Your task to perform on an android device: toggle notifications settings in the gmail app Image 0: 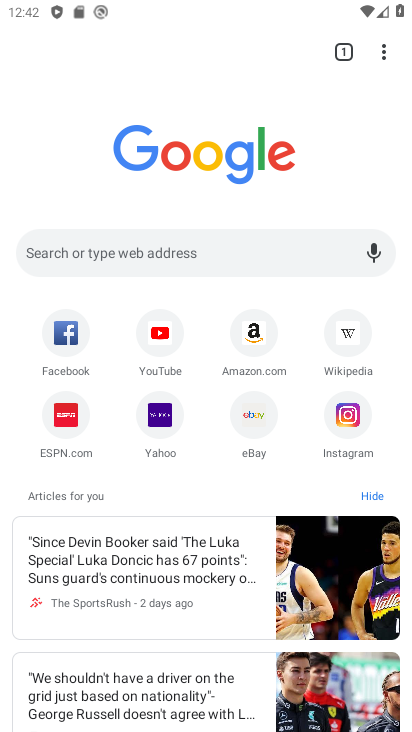
Step 0: press back button
Your task to perform on an android device: toggle notifications settings in the gmail app Image 1: 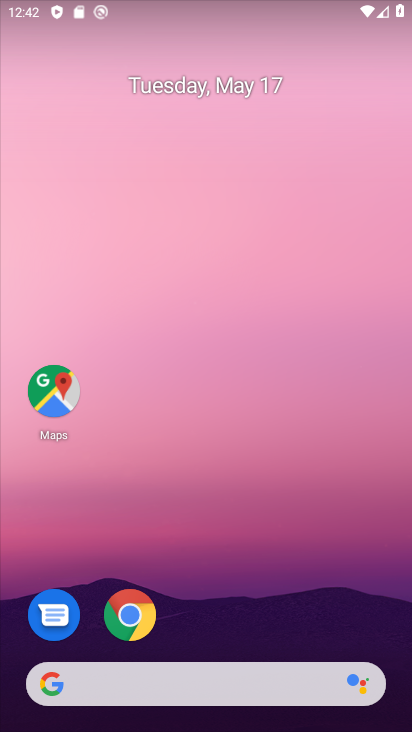
Step 1: drag from (249, 610) to (214, 30)
Your task to perform on an android device: toggle notifications settings in the gmail app Image 2: 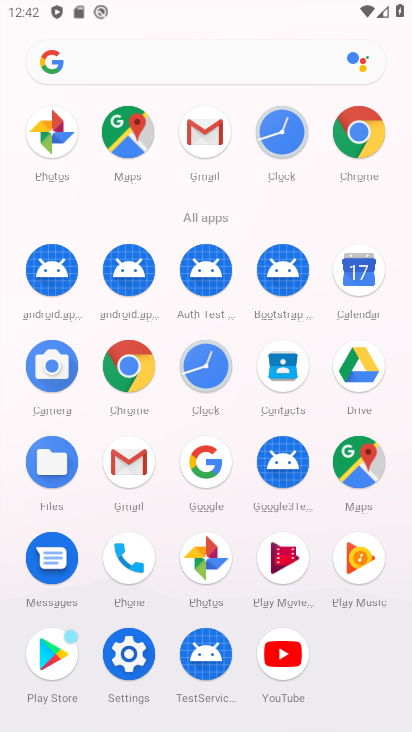
Step 2: click (206, 130)
Your task to perform on an android device: toggle notifications settings in the gmail app Image 3: 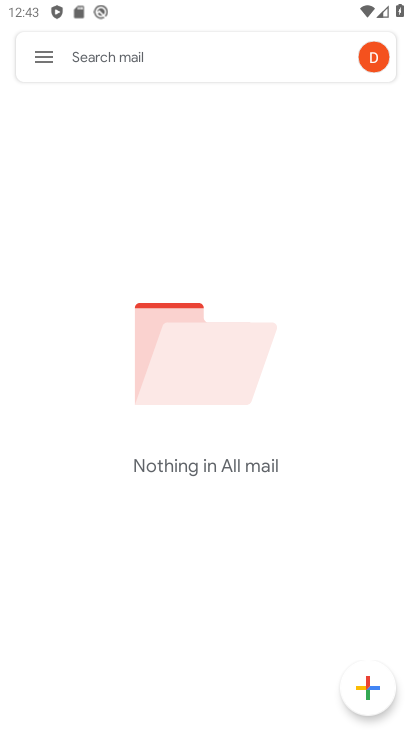
Step 3: click (36, 57)
Your task to perform on an android device: toggle notifications settings in the gmail app Image 4: 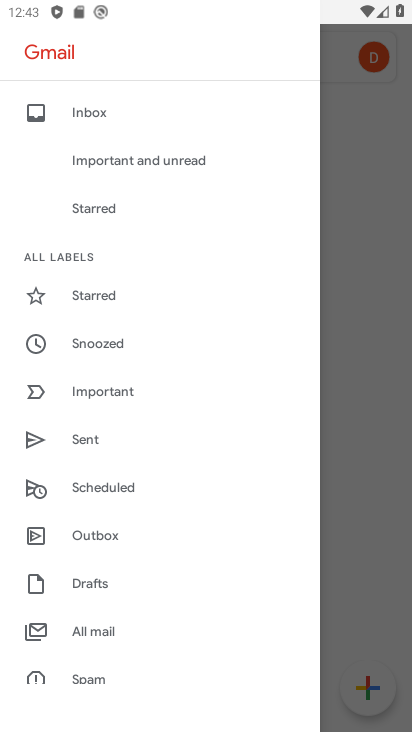
Step 4: drag from (126, 512) to (116, 416)
Your task to perform on an android device: toggle notifications settings in the gmail app Image 5: 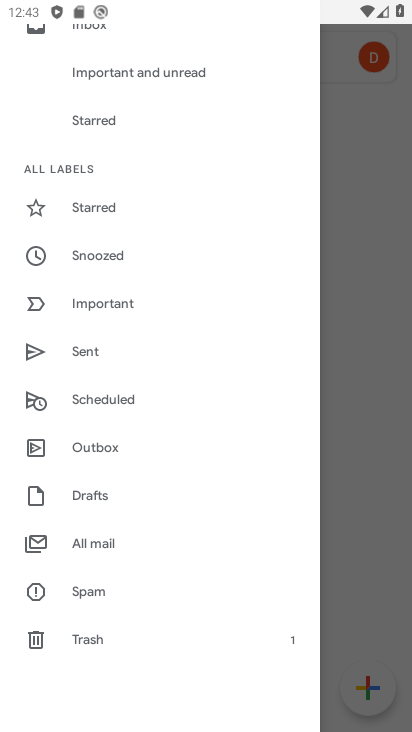
Step 5: drag from (89, 556) to (114, 445)
Your task to perform on an android device: toggle notifications settings in the gmail app Image 6: 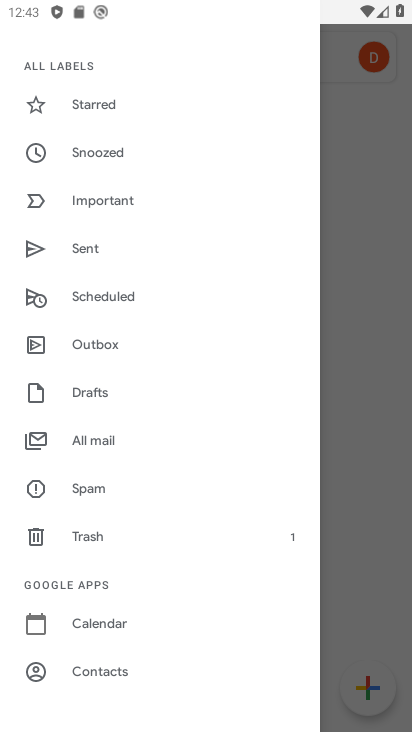
Step 6: drag from (84, 639) to (114, 551)
Your task to perform on an android device: toggle notifications settings in the gmail app Image 7: 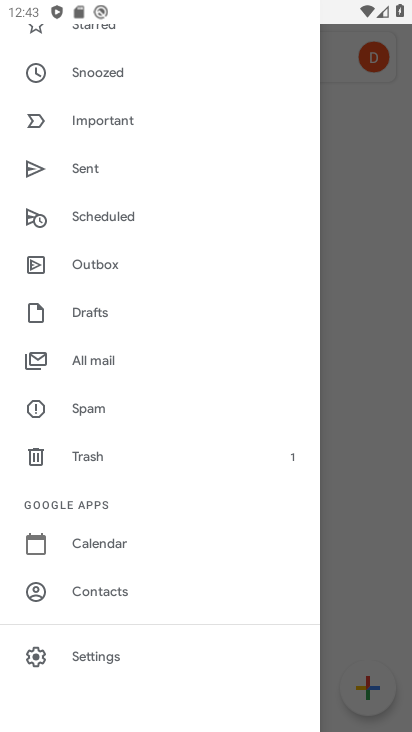
Step 7: click (118, 656)
Your task to perform on an android device: toggle notifications settings in the gmail app Image 8: 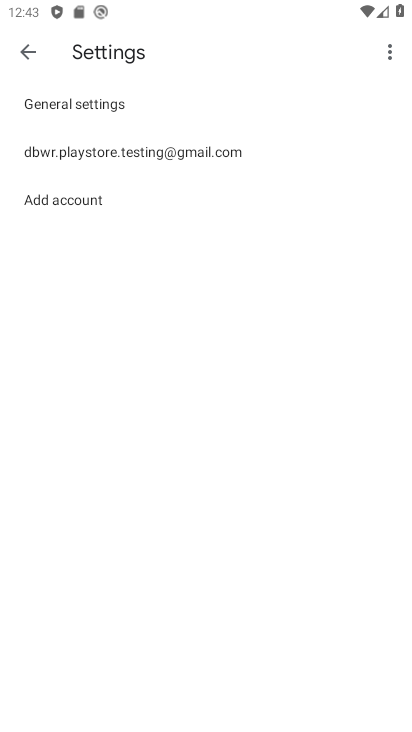
Step 8: click (207, 145)
Your task to perform on an android device: toggle notifications settings in the gmail app Image 9: 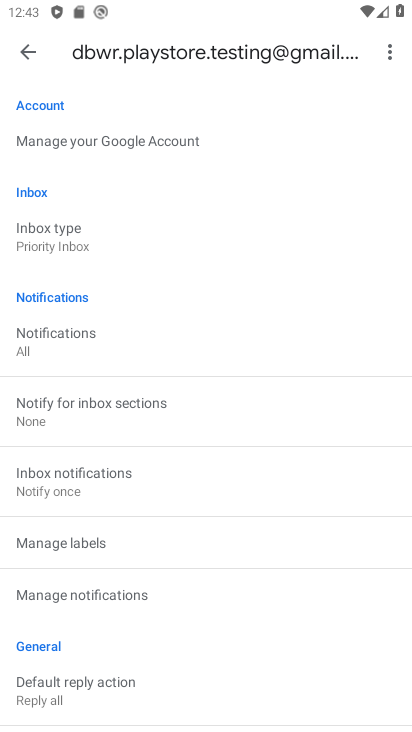
Step 9: click (116, 598)
Your task to perform on an android device: toggle notifications settings in the gmail app Image 10: 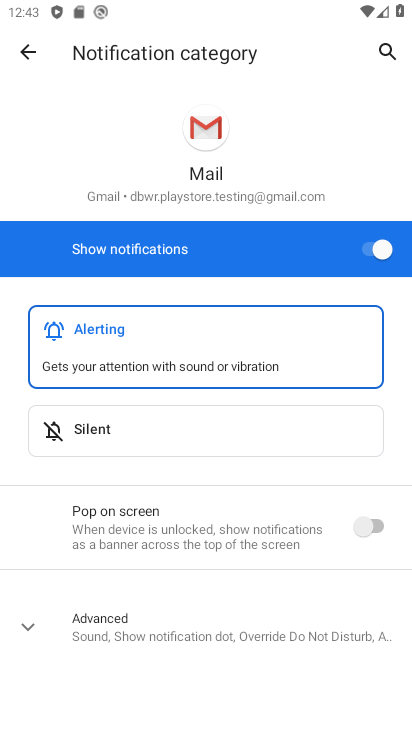
Step 10: click (373, 256)
Your task to perform on an android device: toggle notifications settings in the gmail app Image 11: 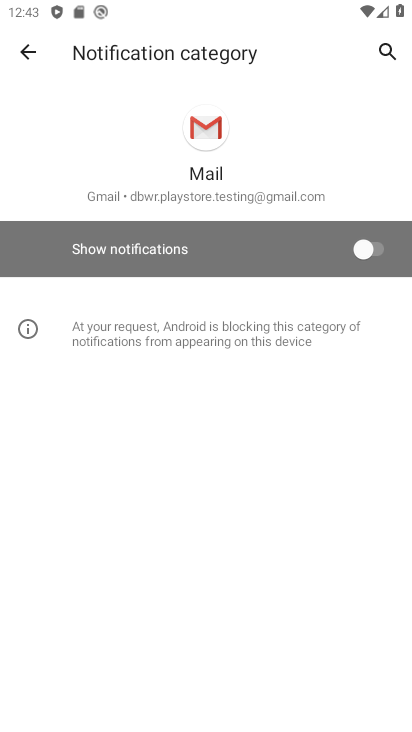
Step 11: task complete